Your task to perform on an android device: all mails in gmail Image 0: 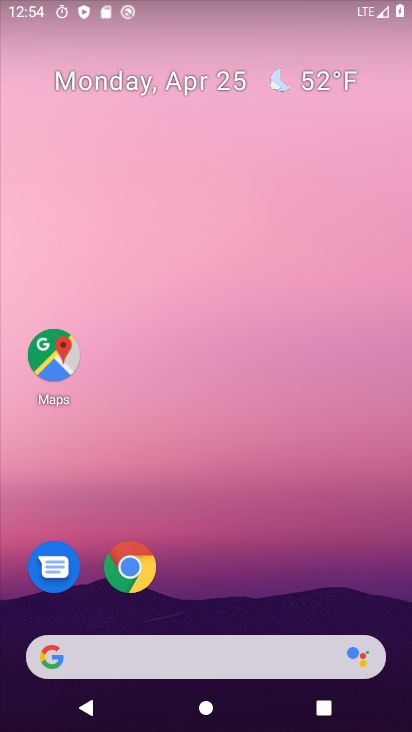
Step 0: drag from (270, 563) to (350, 59)
Your task to perform on an android device: all mails in gmail Image 1: 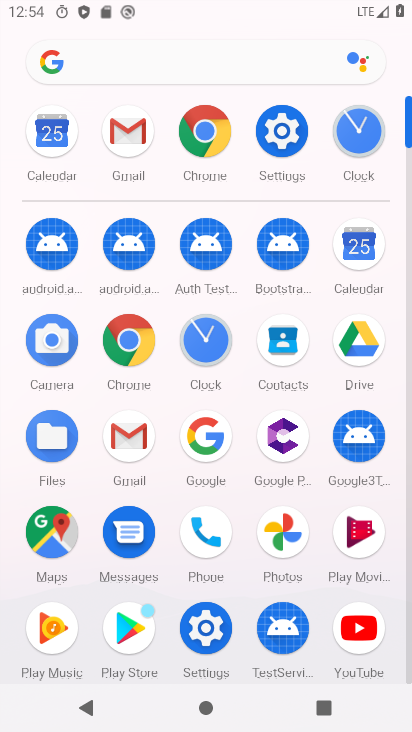
Step 1: click (136, 140)
Your task to perform on an android device: all mails in gmail Image 2: 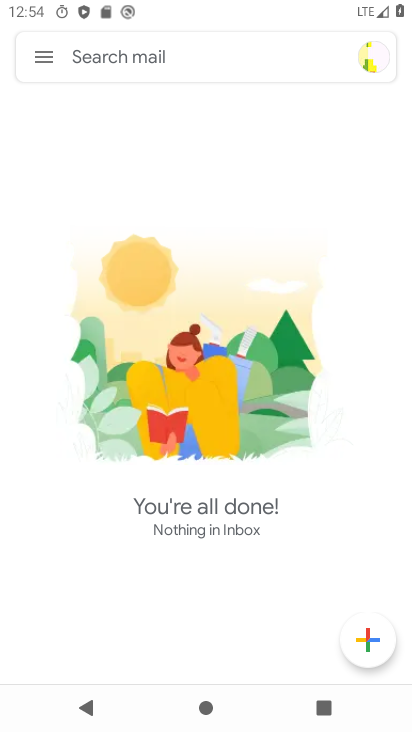
Step 2: click (41, 57)
Your task to perform on an android device: all mails in gmail Image 3: 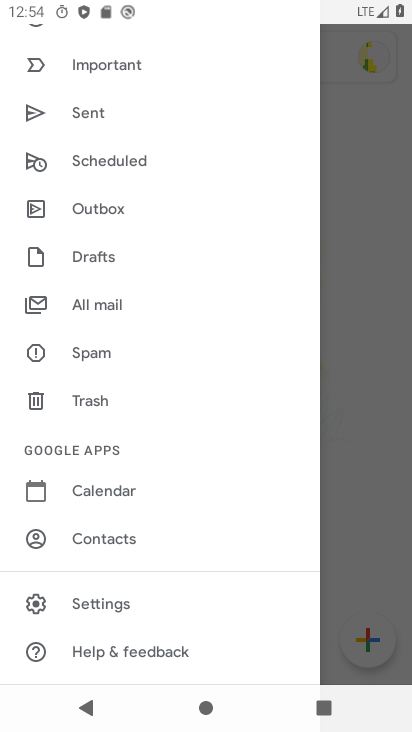
Step 3: click (140, 301)
Your task to perform on an android device: all mails in gmail Image 4: 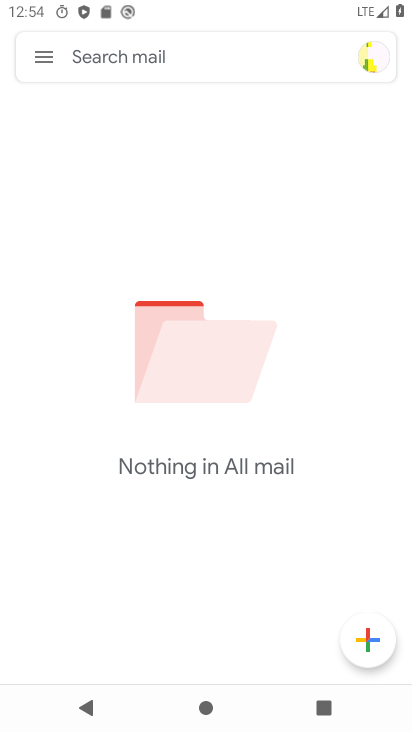
Step 4: task complete